Your task to perform on an android device: Go to Maps Image 0: 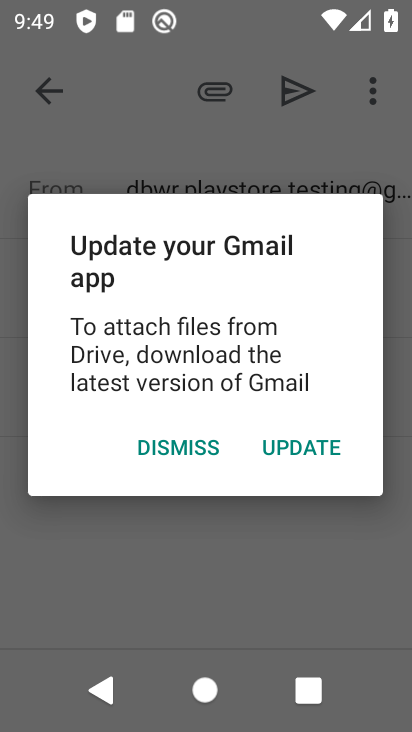
Step 0: press home button
Your task to perform on an android device: Go to Maps Image 1: 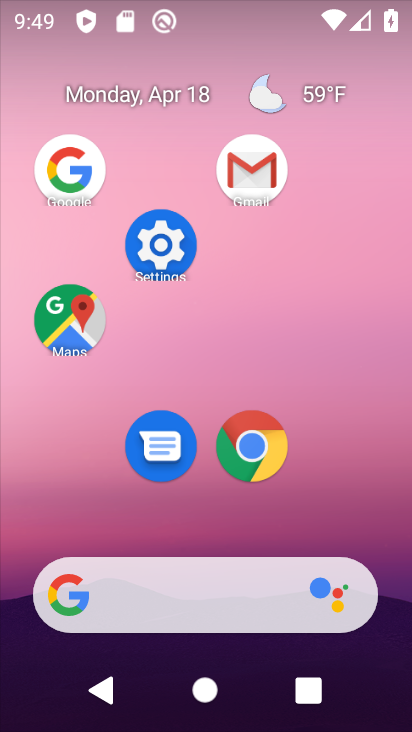
Step 1: click (57, 315)
Your task to perform on an android device: Go to Maps Image 2: 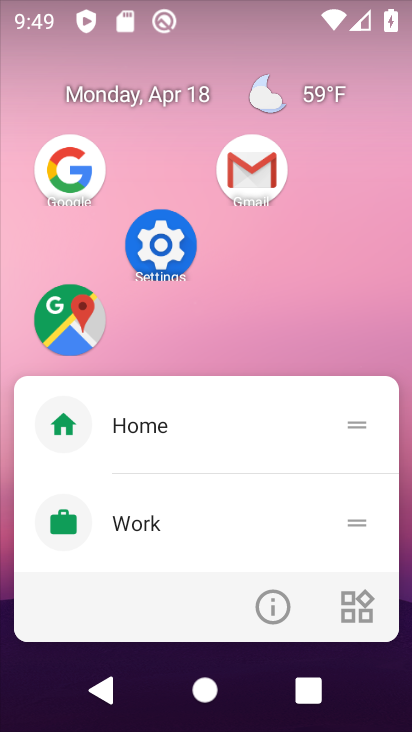
Step 2: click (72, 315)
Your task to perform on an android device: Go to Maps Image 3: 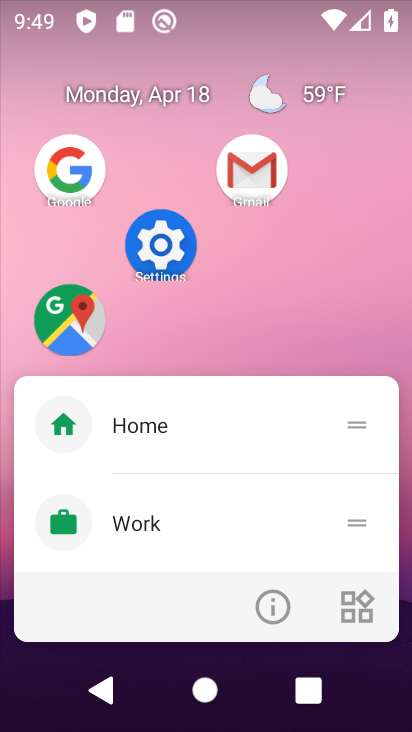
Step 3: click (72, 316)
Your task to perform on an android device: Go to Maps Image 4: 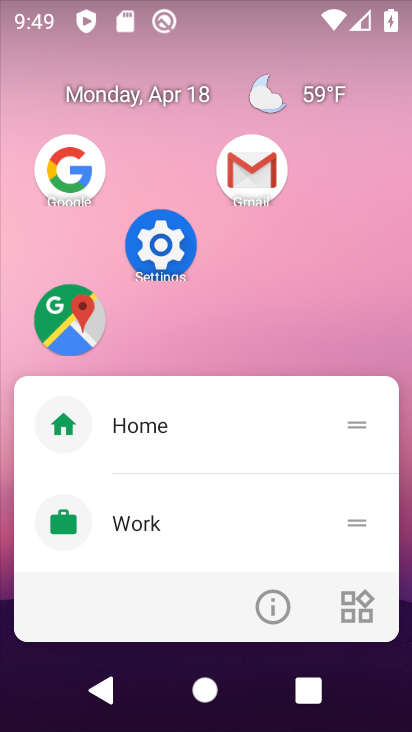
Step 4: click (72, 316)
Your task to perform on an android device: Go to Maps Image 5: 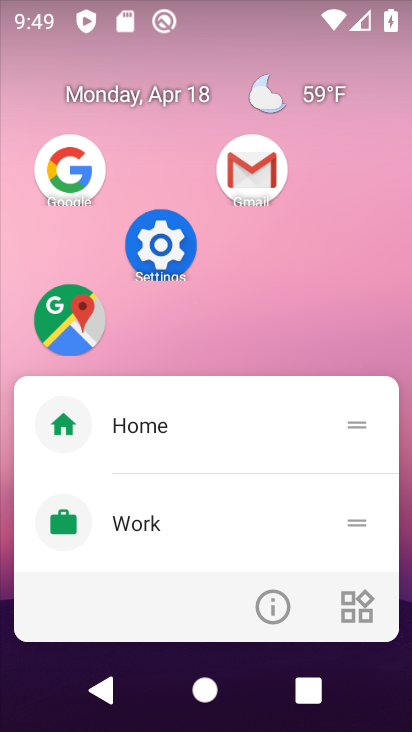
Step 5: click (72, 316)
Your task to perform on an android device: Go to Maps Image 6: 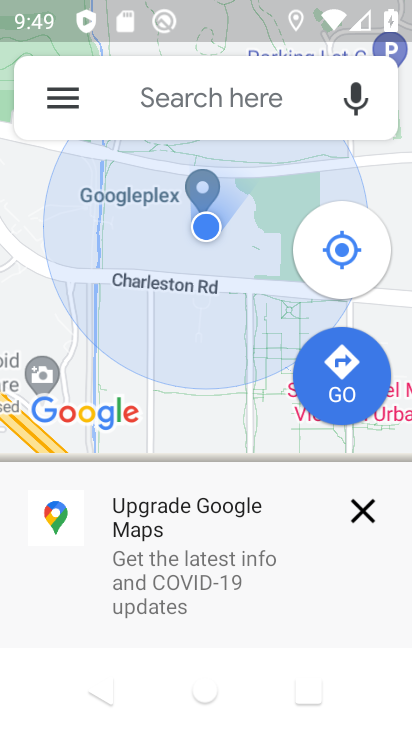
Step 6: task complete